Your task to perform on an android device: Open battery settings Image 0: 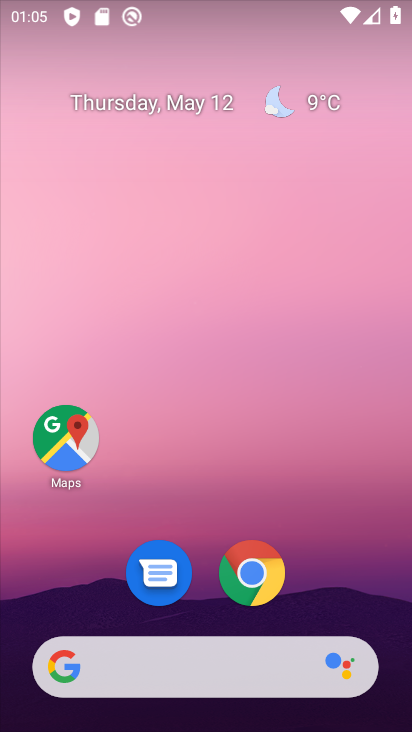
Step 0: drag from (324, 601) to (402, 20)
Your task to perform on an android device: Open battery settings Image 1: 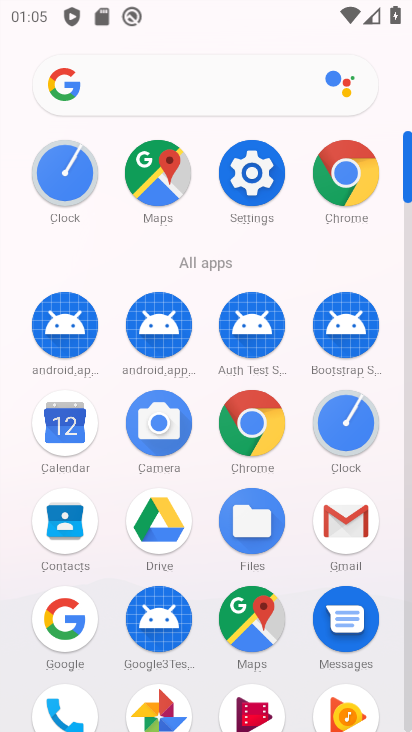
Step 1: click (242, 176)
Your task to perform on an android device: Open battery settings Image 2: 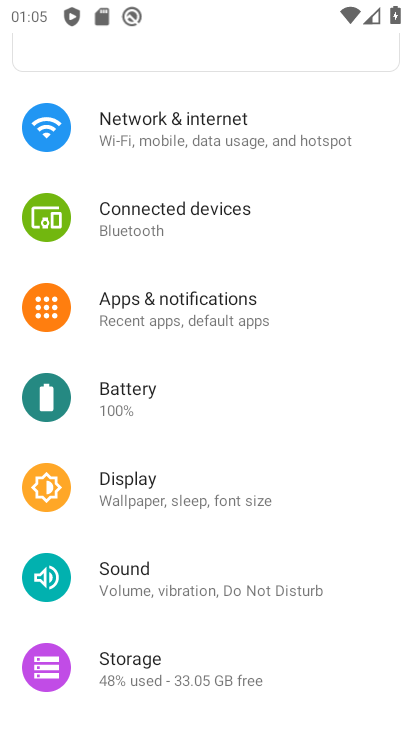
Step 2: click (151, 406)
Your task to perform on an android device: Open battery settings Image 3: 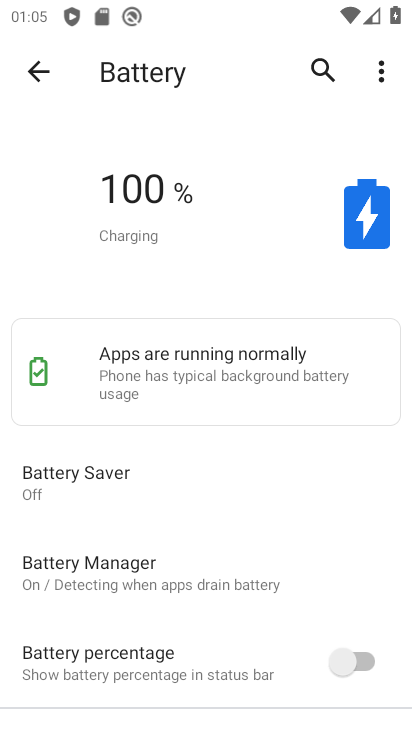
Step 3: task complete